Your task to perform on an android device: What is the news today? Image 0: 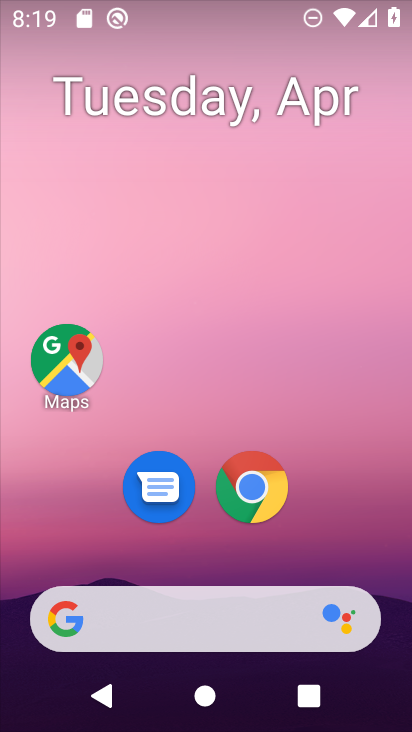
Step 0: drag from (190, 581) to (222, 278)
Your task to perform on an android device: What is the news today? Image 1: 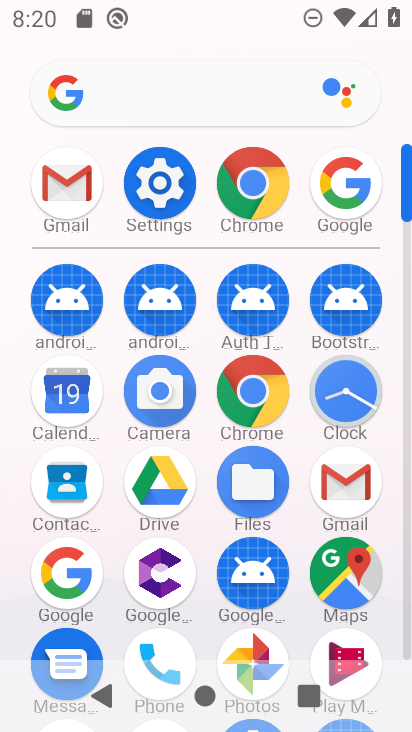
Step 1: click (346, 191)
Your task to perform on an android device: What is the news today? Image 2: 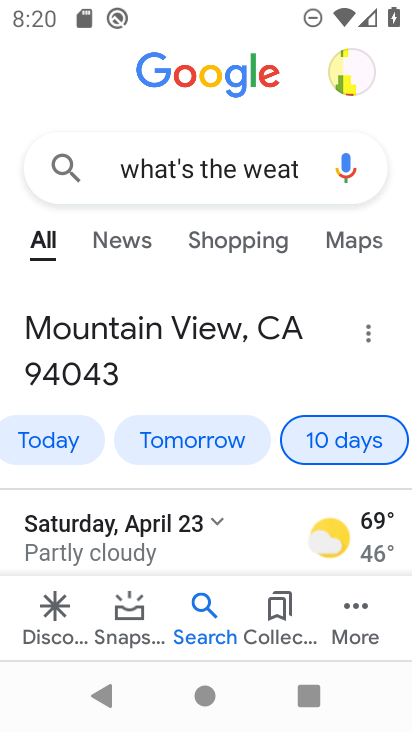
Step 2: click (302, 169)
Your task to perform on an android device: What is the news today? Image 3: 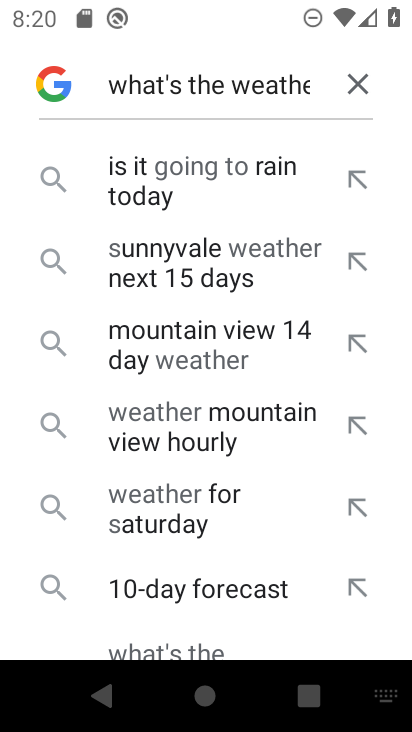
Step 3: click (320, 86)
Your task to perform on an android device: What is the news today? Image 4: 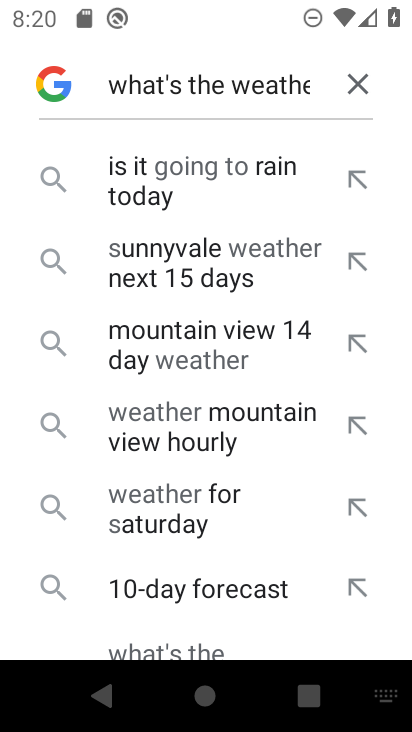
Step 4: click (368, 85)
Your task to perform on an android device: What is the news today? Image 5: 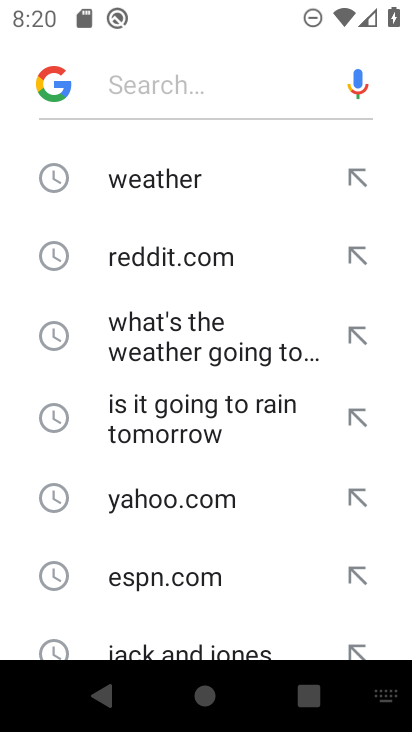
Step 5: type "what is the news today?"
Your task to perform on an android device: What is the news today? Image 6: 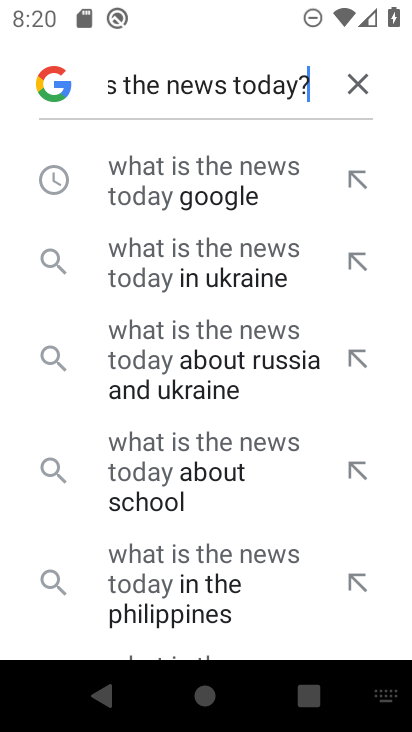
Step 6: drag from (217, 636) to (223, 285)
Your task to perform on an android device: What is the news today? Image 7: 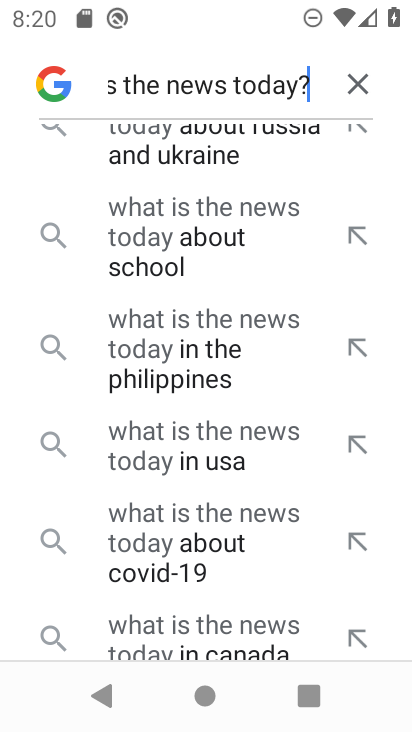
Step 7: drag from (184, 612) to (187, 377)
Your task to perform on an android device: What is the news today? Image 8: 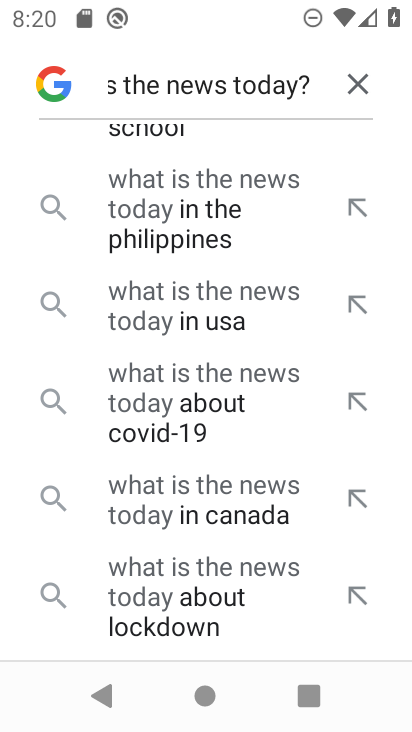
Step 8: drag from (172, 622) to (198, 357)
Your task to perform on an android device: What is the news today? Image 9: 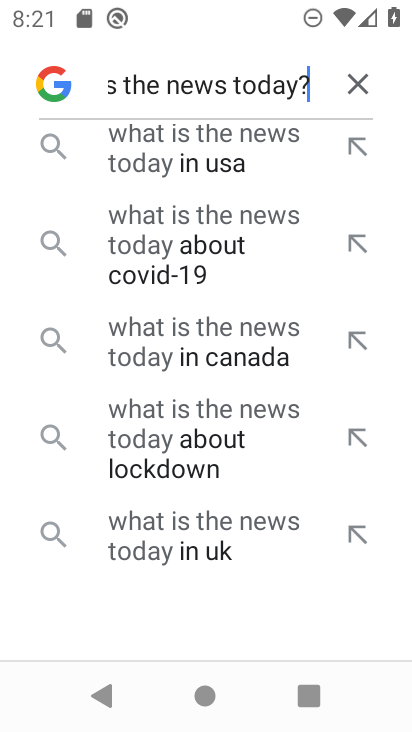
Step 9: drag from (229, 153) to (216, 485)
Your task to perform on an android device: What is the news today? Image 10: 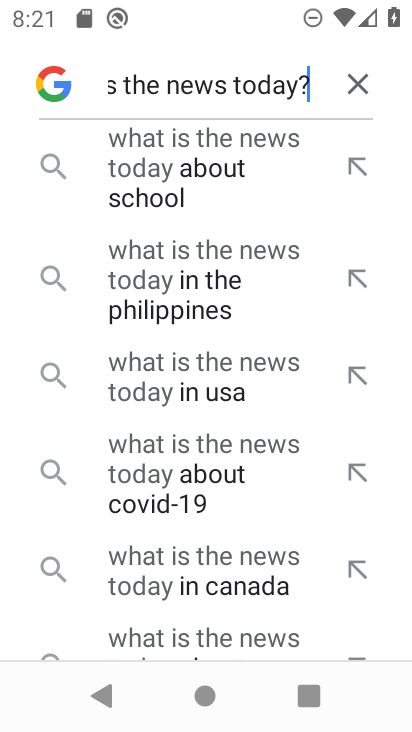
Step 10: drag from (244, 154) to (266, 449)
Your task to perform on an android device: What is the news today? Image 11: 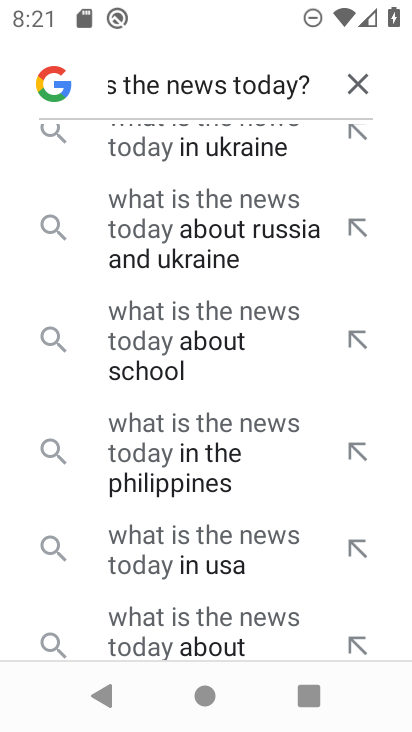
Step 11: drag from (252, 139) to (233, 533)
Your task to perform on an android device: What is the news today? Image 12: 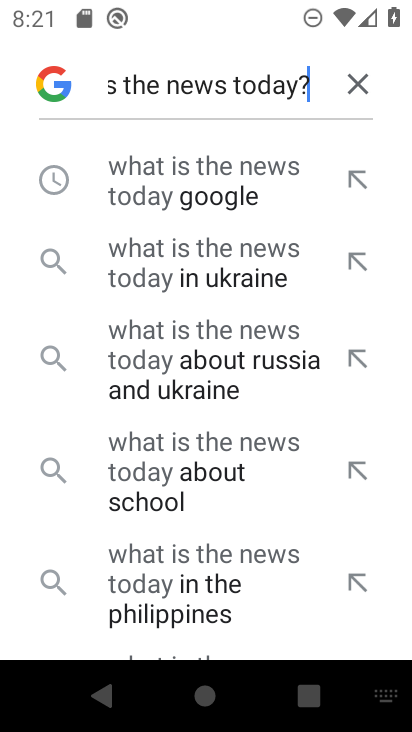
Step 12: click (226, 174)
Your task to perform on an android device: What is the news today? Image 13: 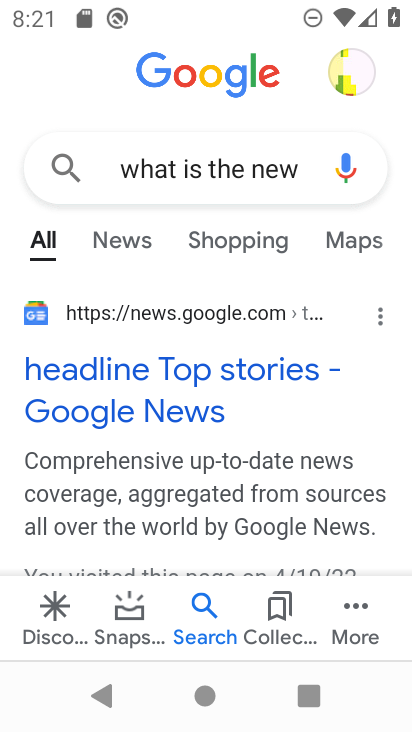
Step 13: drag from (192, 509) to (195, 247)
Your task to perform on an android device: What is the news today? Image 14: 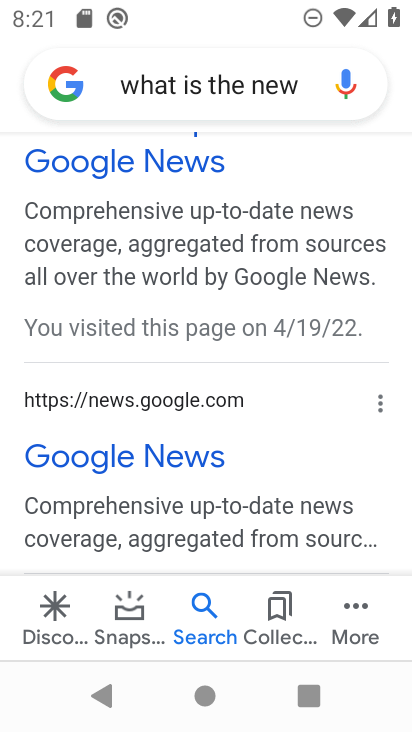
Step 14: click (104, 460)
Your task to perform on an android device: What is the news today? Image 15: 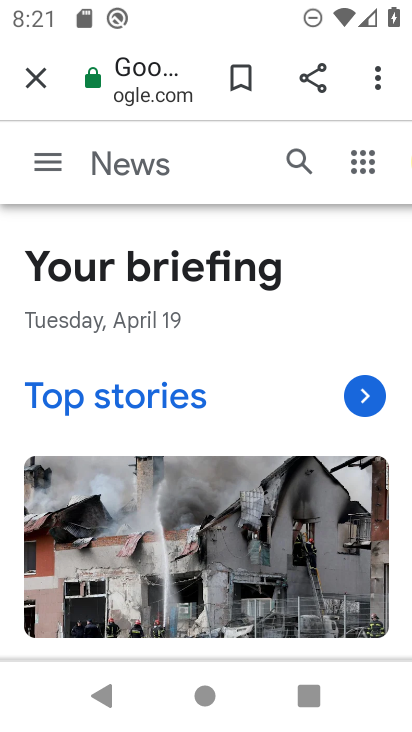
Step 15: task complete